Your task to perform on an android device: Search for seafood restaurants on Google Maps Image 0: 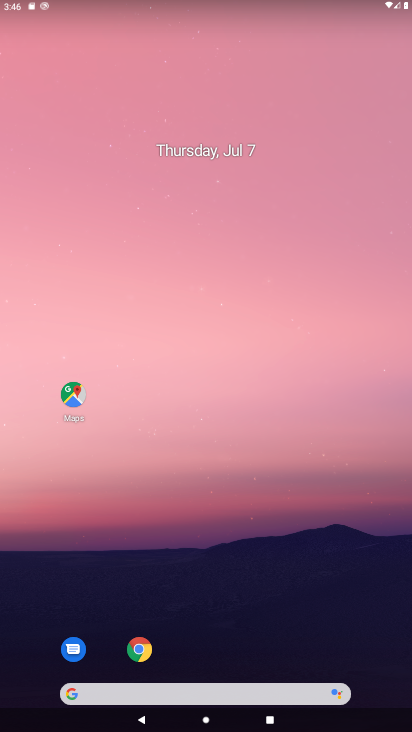
Step 0: click (77, 395)
Your task to perform on an android device: Search for seafood restaurants on Google Maps Image 1: 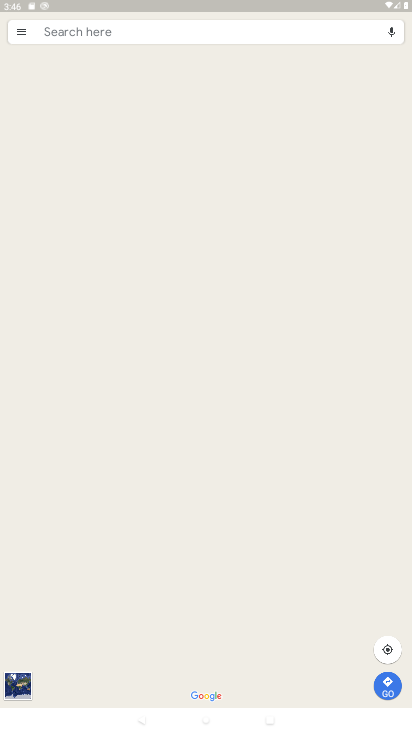
Step 1: click (93, 27)
Your task to perform on an android device: Search for seafood restaurants on Google Maps Image 2: 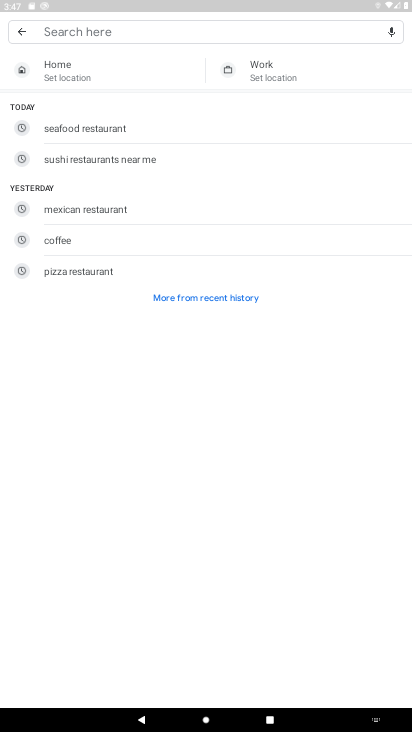
Step 2: type "seafood restaurants"
Your task to perform on an android device: Search for seafood restaurants on Google Maps Image 3: 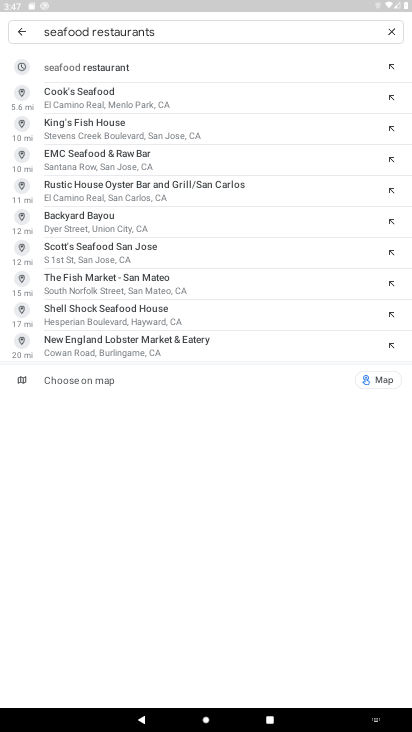
Step 3: click (93, 61)
Your task to perform on an android device: Search for seafood restaurants on Google Maps Image 4: 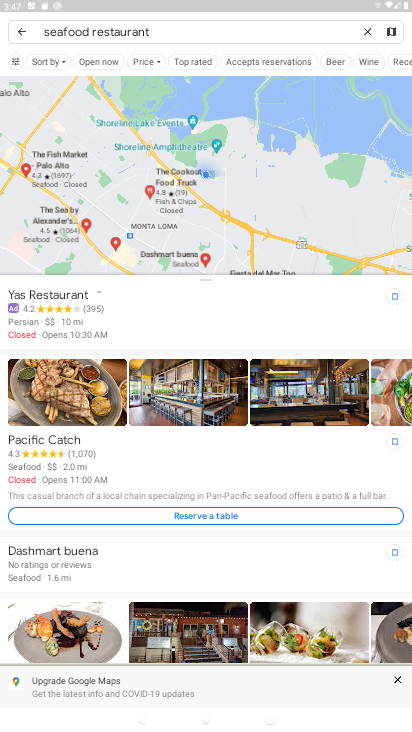
Step 4: task complete